Your task to perform on an android device: Open the stopwatch Image 0: 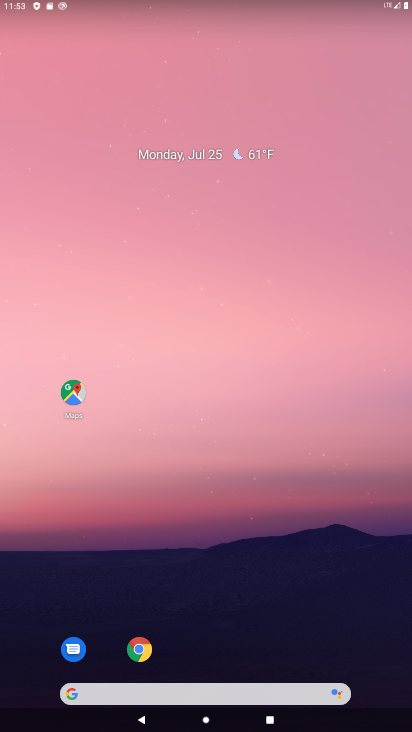
Step 0: drag from (225, 673) to (204, 150)
Your task to perform on an android device: Open the stopwatch Image 1: 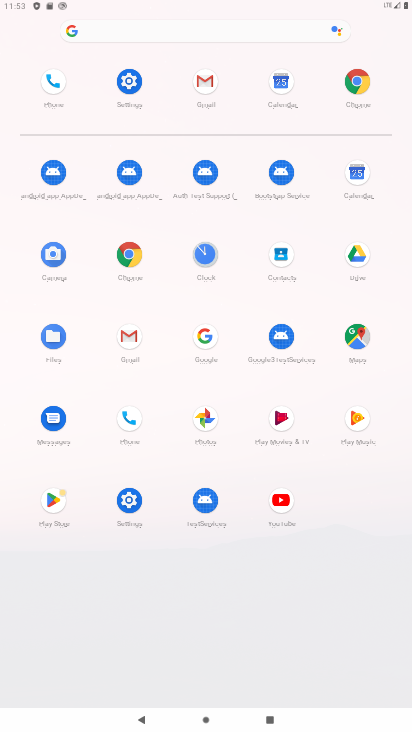
Step 1: click (206, 260)
Your task to perform on an android device: Open the stopwatch Image 2: 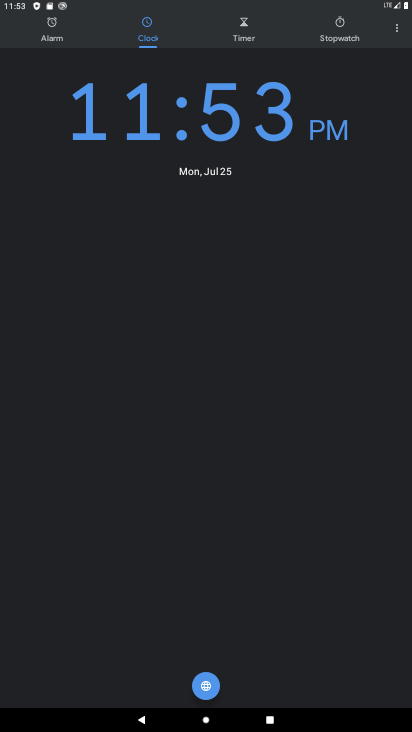
Step 2: click (331, 36)
Your task to perform on an android device: Open the stopwatch Image 3: 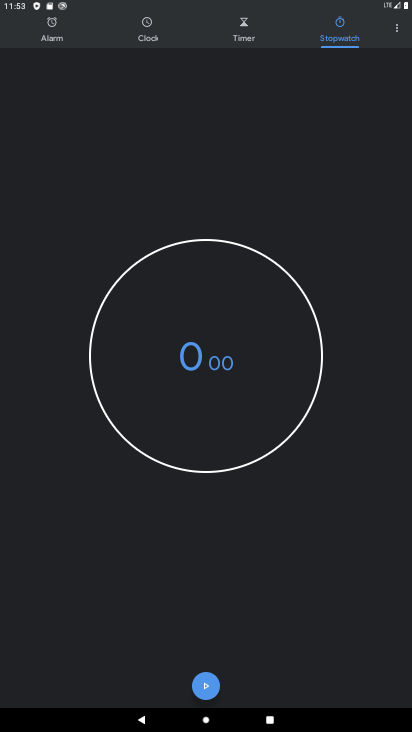
Step 3: task complete